Your task to perform on an android device: Open the calendar and show me this week's events? Image 0: 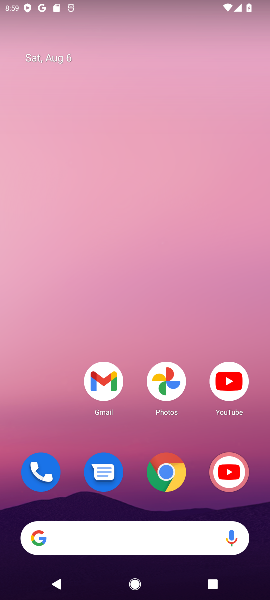
Step 0: drag from (243, 581) to (159, 74)
Your task to perform on an android device: Open the calendar and show me this week's events? Image 1: 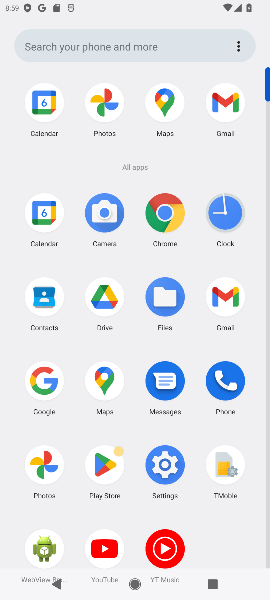
Step 1: click (46, 232)
Your task to perform on an android device: Open the calendar and show me this week's events? Image 2: 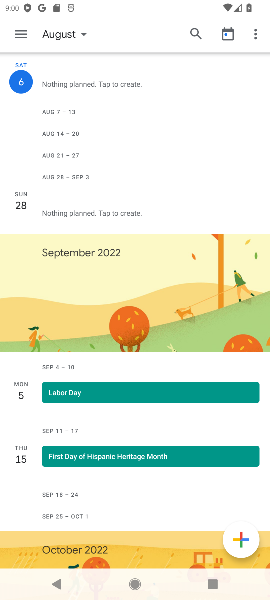
Step 2: click (82, 31)
Your task to perform on an android device: Open the calendar and show me this week's events? Image 3: 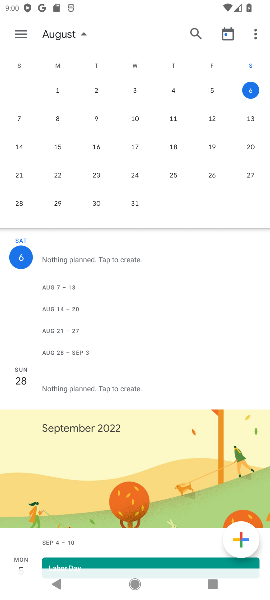
Step 3: click (210, 90)
Your task to perform on an android device: Open the calendar and show me this week's events? Image 4: 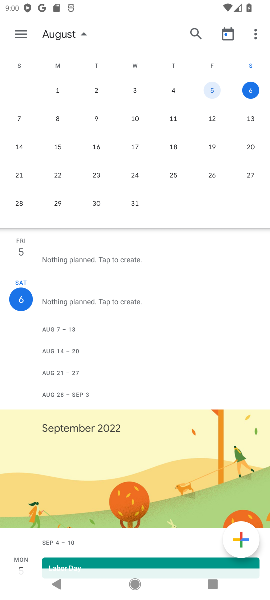
Step 4: click (23, 27)
Your task to perform on an android device: Open the calendar and show me this week's events? Image 5: 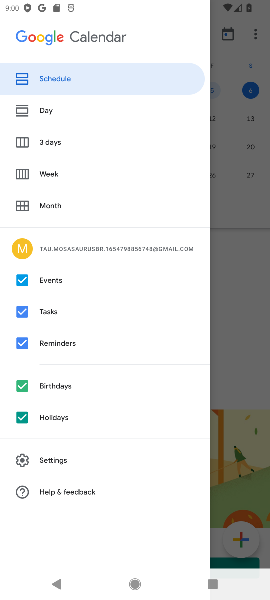
Step 5: click (49, 174)
Your task to perform on an android device: Open the calendar and show me this week's events? Image 6: 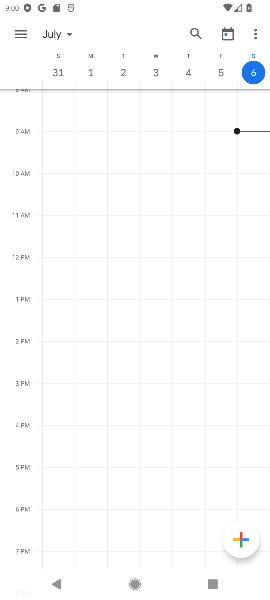
Step 6: task complete